Your task to perform on an android device: toggle wifi Image 0: 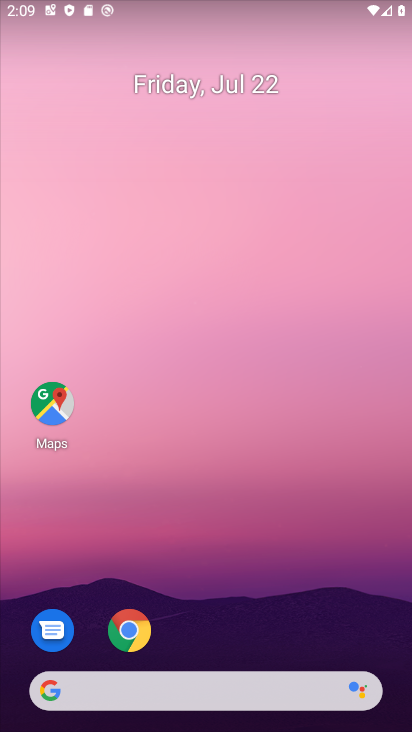
Step 0: drag from (197, 659) to (279, 549)
Your task to perform on an android device: toggle wifi Image 1: 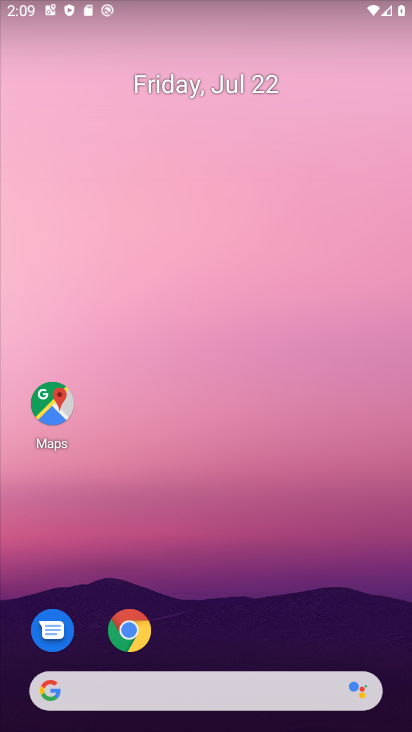
Step 1: drag from (221, 659) to (411, 10)
Your task to perform on an android device: toggle wifi Image 2: 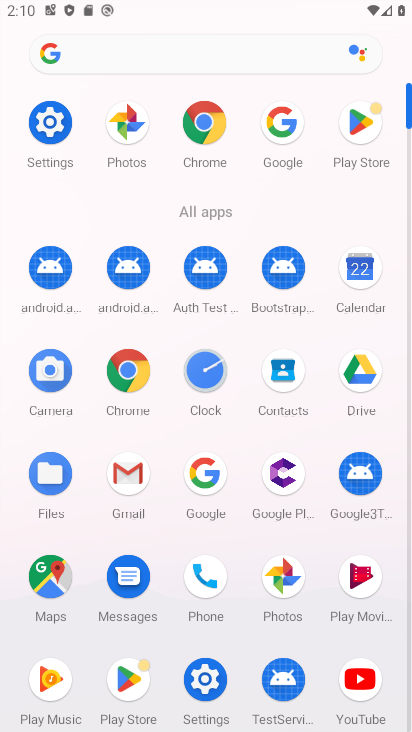
Step 2: click (223, 667)
Your task to perform on an android device: toggle wifi Image 3: 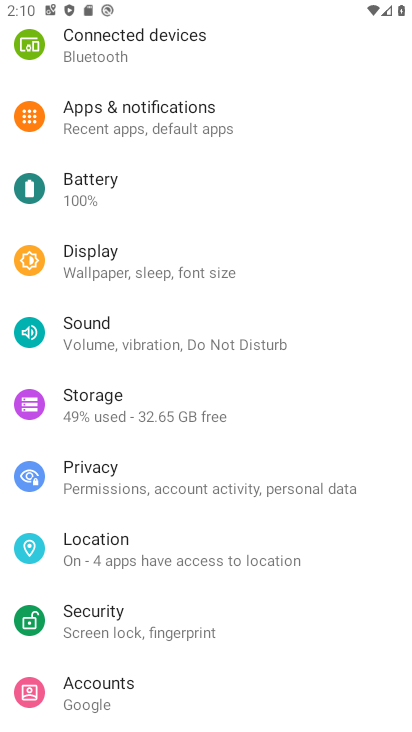
Step 3: drag from (242, 105) to (235, 497)
Your task to perform on an android device: toggle wifi Image 4: 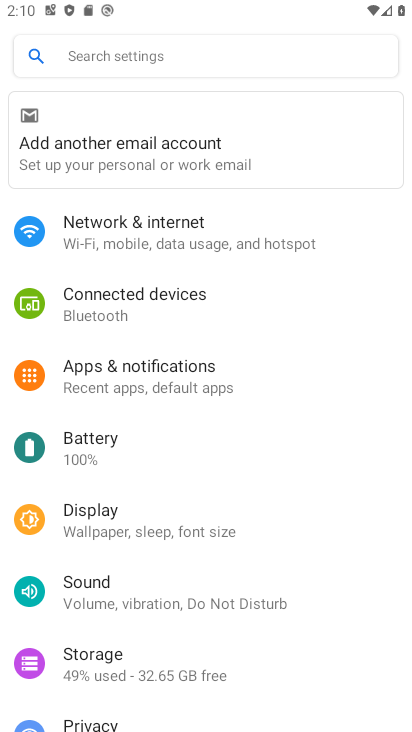
Step 4: click (171, 215)
Your task to perform on an android device: toggle wifi Image 5: 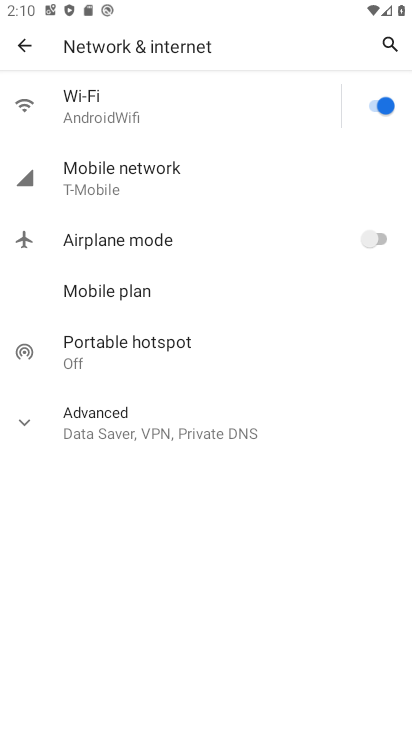
Step 5: click (167, 112)
Your task to perform on an android device: toggle wifi Image 6: 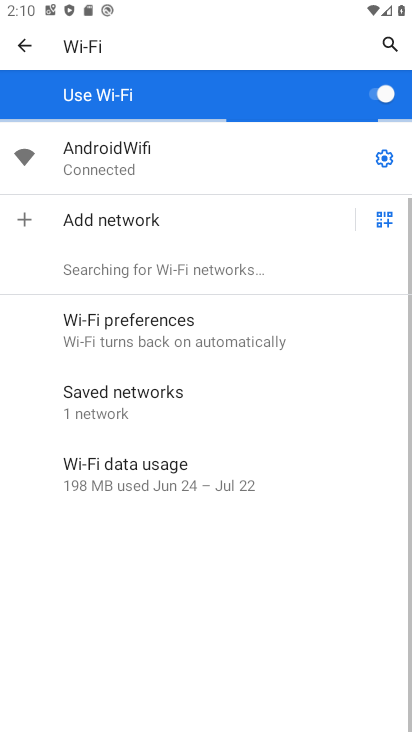
Step 6: click (369, 102)
Your task to perform on an android device: toggle wifi Image 7: 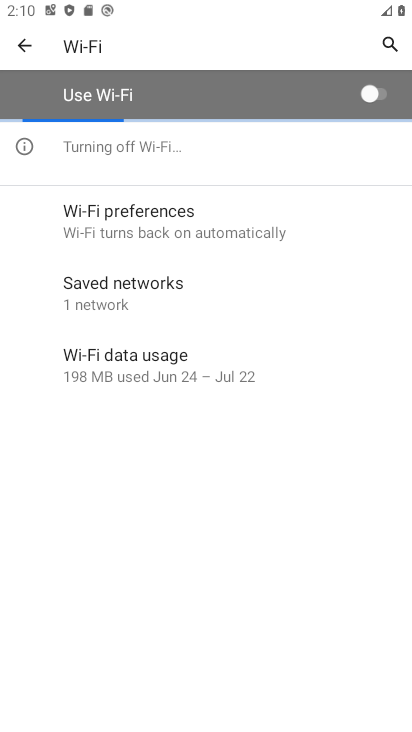
Step 7: task complete